Your task to perform on an android device: When is my next meeting? Image 0: 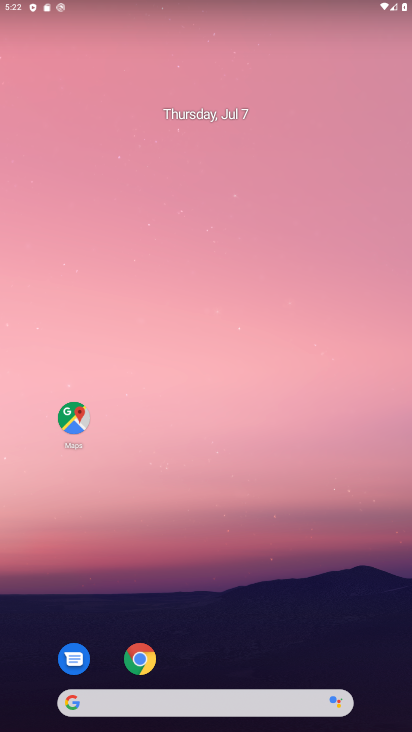
Step 0: click (309, 31)
Your task to perform on an android device: When is my next meeting? Image 1: 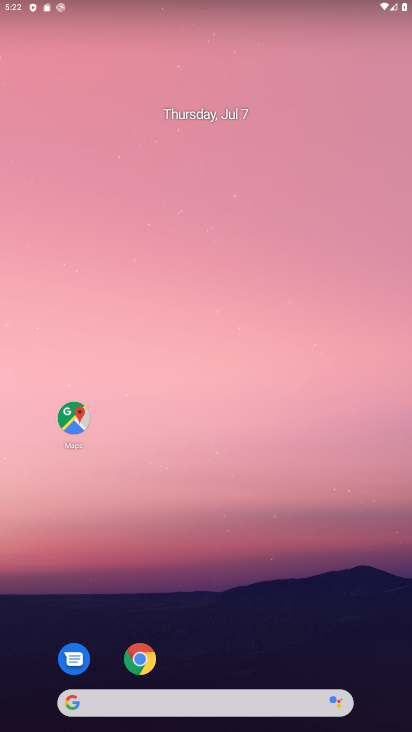
Step 1: drag from (334, 602) to (293, 133)
Your task to perform on an android device: When is my next meeting? Image 2: 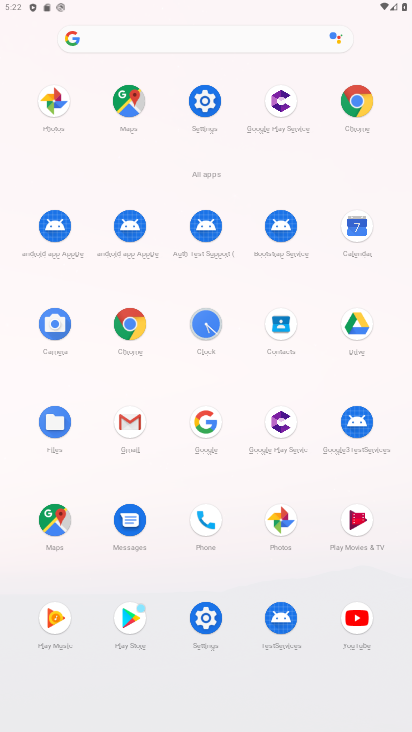
Step 2: click (341, 244)
Your task to perform on an android device: When is my next meeting? Image 3: 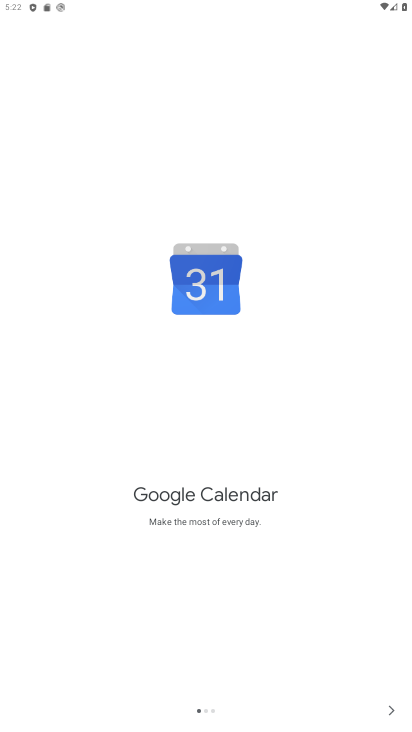
Step 3: click (393, 722)
Your task to perform on an android device: When is my next meeting? Image 4: 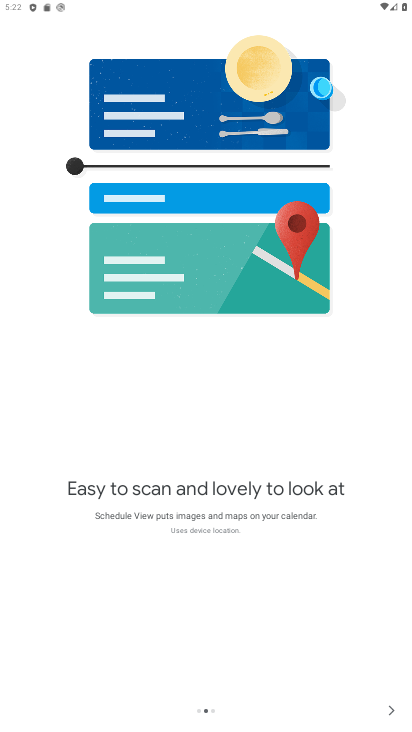
Step 4: click (393, 722)
Your task to perform on an android device: When is my next meeting? Image 5: 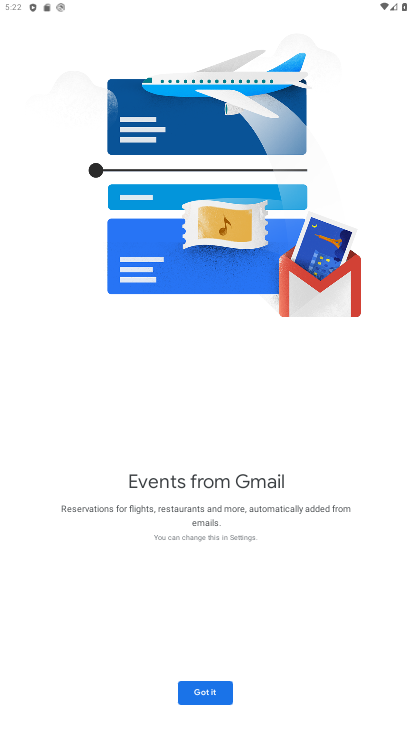
Step 5: click (393, 722)
Your task to perform on an android device: When is my next meeting? Image 6: 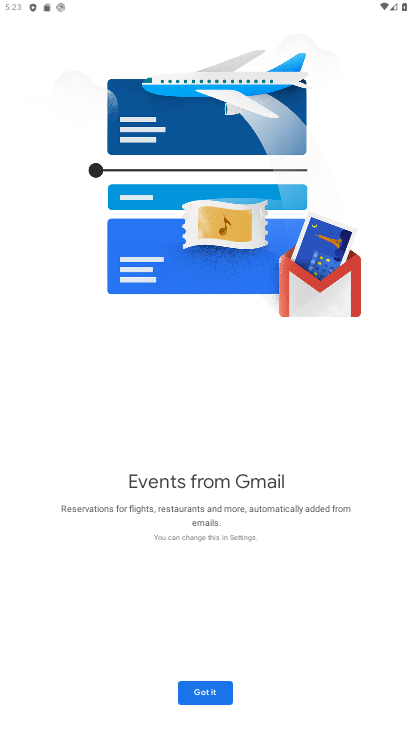
Step 6: click (199, 704)
Your task to perform on an android device: When is my next meeting? Image 7: 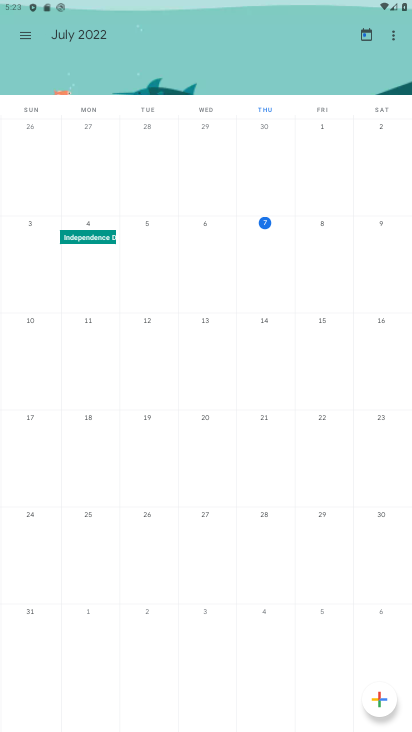
Step 7: click (199, 704)
Your task to perform on an android device: When is my next meeting? Image 8: 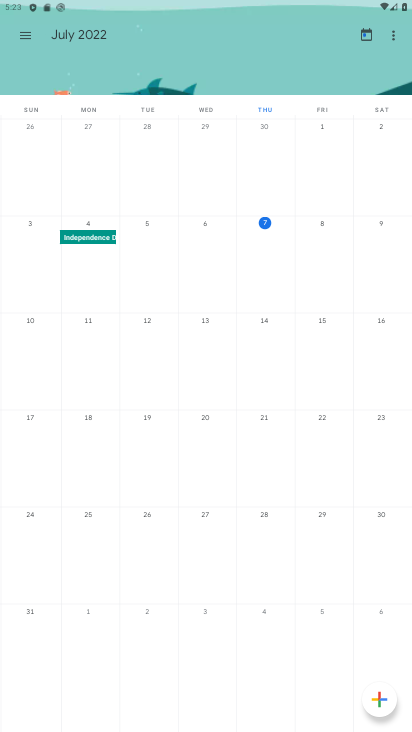
Step 8: click (27, 33)
Your task to perform on an android device: When is my next meeting? Image 9: 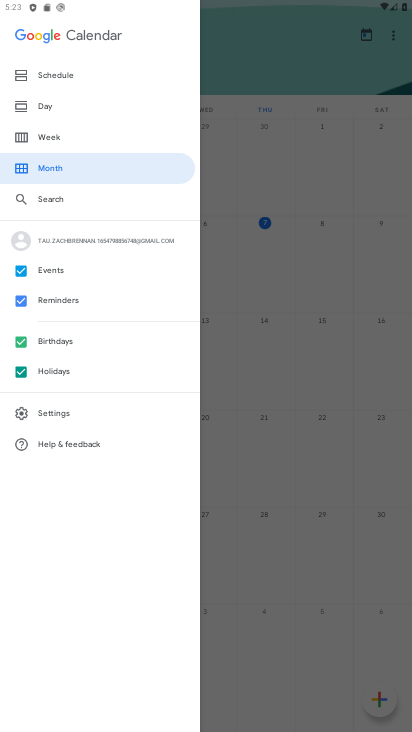
Step 9: drag from (49, 373) to (52, 339)
Your task to perform on an android device: When is my next meeting? Image 10: 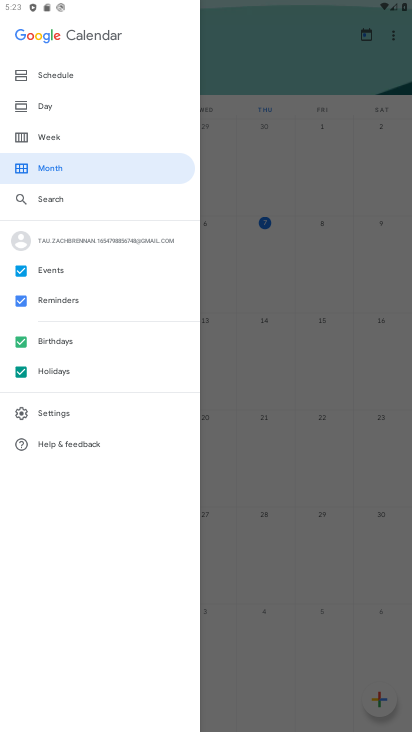
Step 10: click (268, 273)
Your task to perform on an android device: When is my next meeting? Image 11: 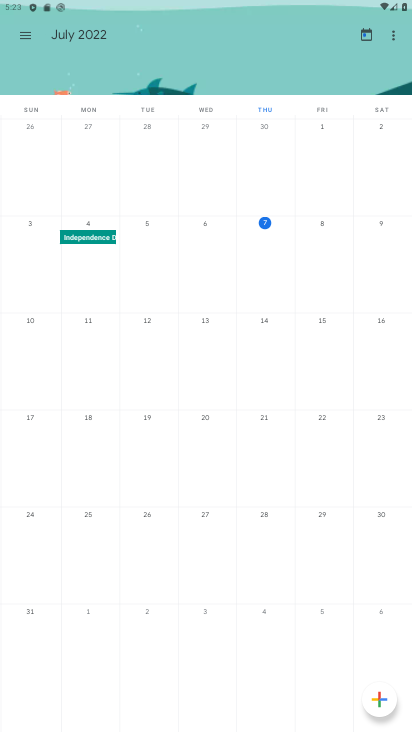
Step 11: task complete